Your task to perform on an android device: find photos in the google photos app Image 0: 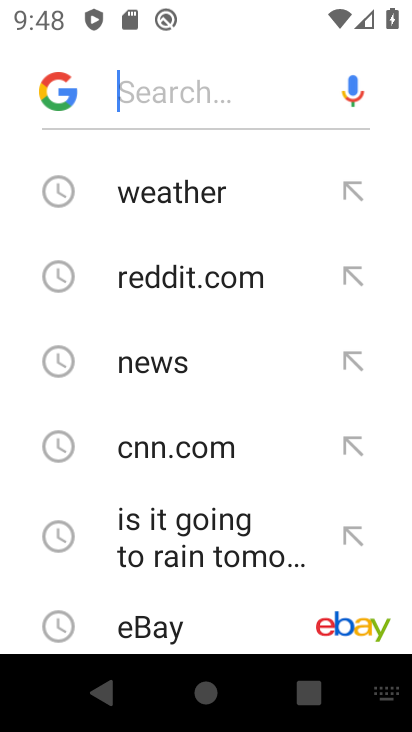
Step 0: press home button
Your task to perform on an android device: find photos in the google photos app Image 1: 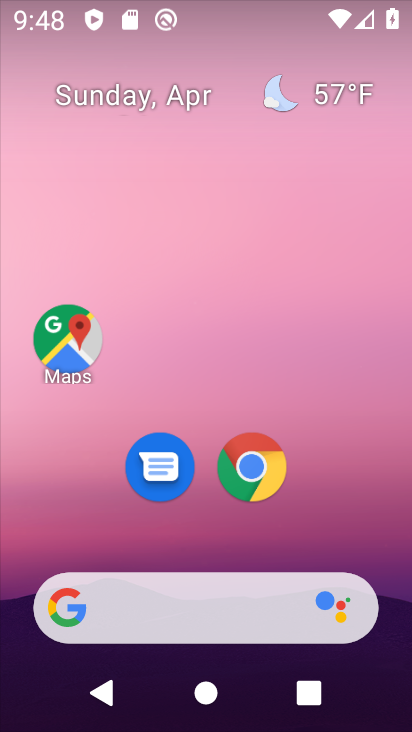
Step 1: drag from (329, 492) to (291, 1)
Your task to perform on an android device: find photos in the google photos app Image 2: 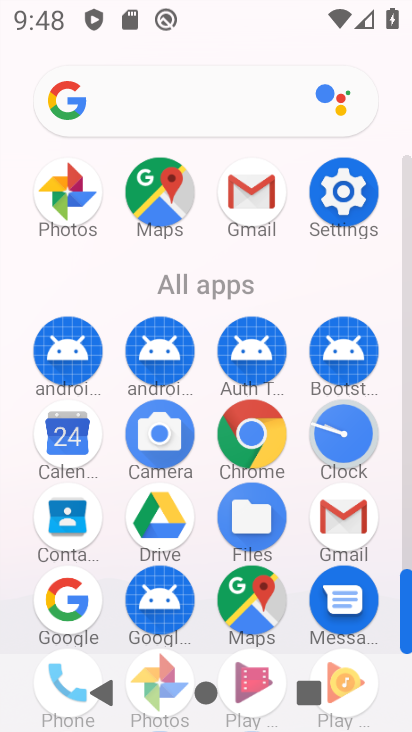
Step 2: drag from (192, 263) to (167, 49)
Your task to perform on an android device: find photos in the google photos app Image 3: 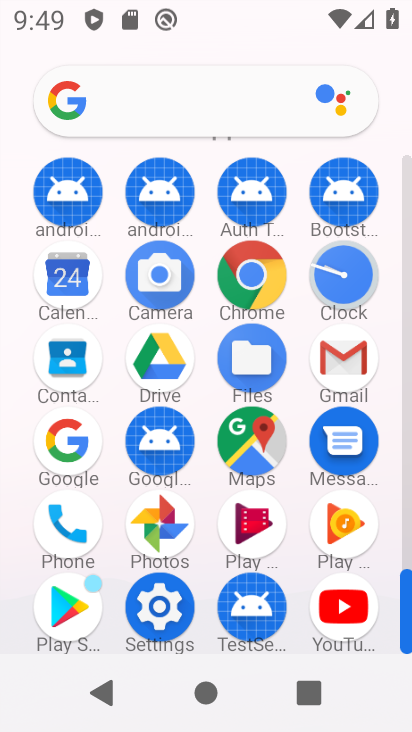
Step 3: click (149, 516)
Your task to perform on an android device: find photos in the google photos app Image 4: 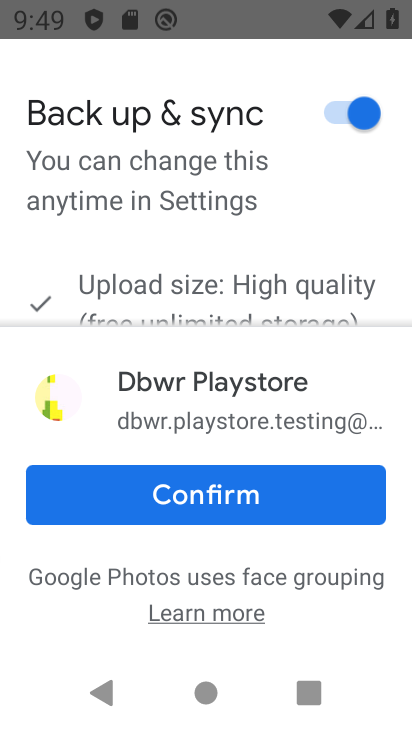
Step 4: click (221, 492)
Your task to perform on an android device: find photos in the google photos app Image 5: 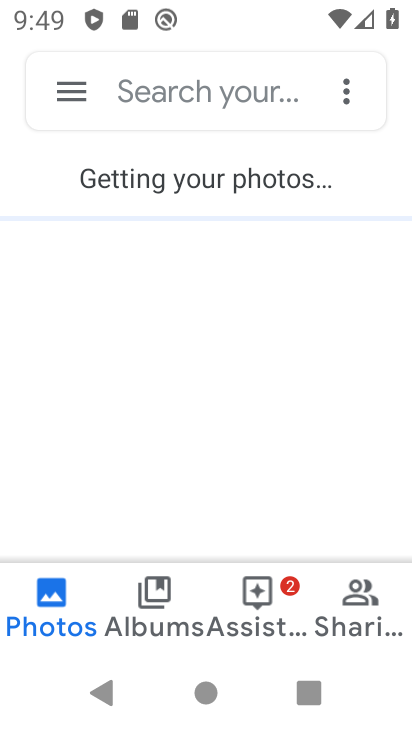
Step 5: task complete